Your task to perform on an android device: turn on priority inbox in the gmail app Image 0: 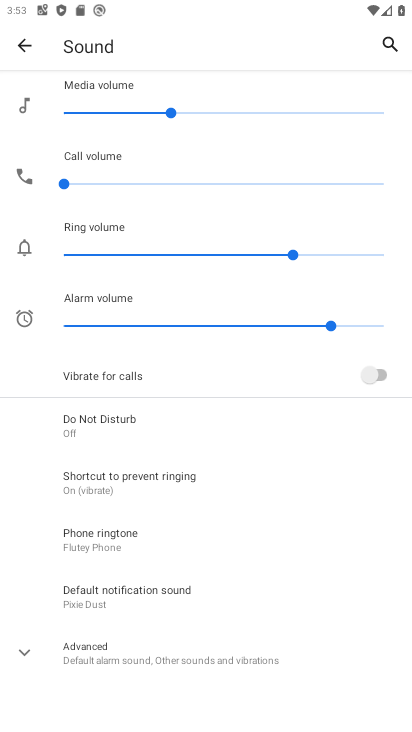
Step 0: press back button
Your task to perform on an android device: turn on priority inbox in the gmail app Image 1: 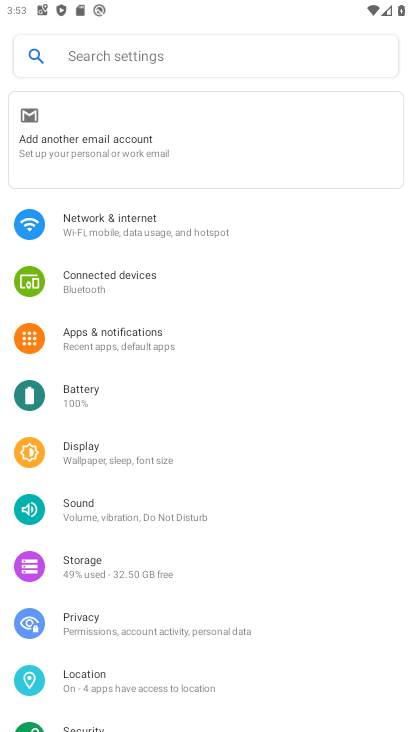
Step 1: press home button
Your task to perform on an android device: turn on priority inbox in the gmail app Image 2: 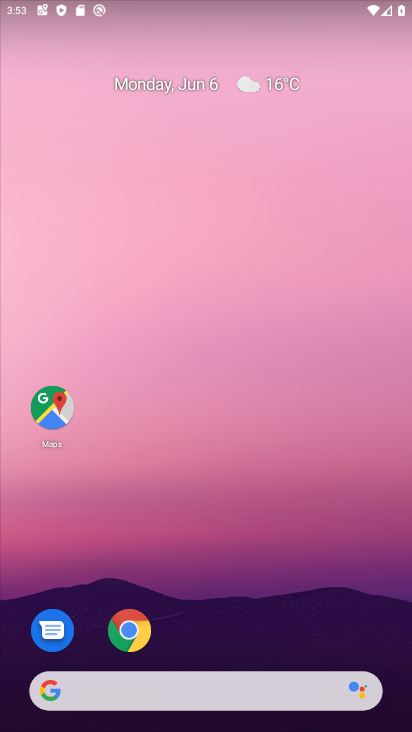
Step 2: drag from (239, 613) to (334, 75)
Your task to perform on an android device: turn on priority inbox in the gmail app Image 3: 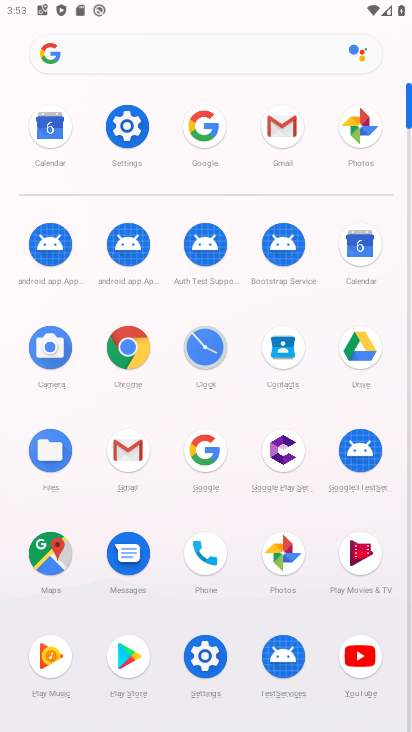
Step 3: click (290, 122)
Your task to perform on an android device: turn on priority inbox in the gmail app Image 4: 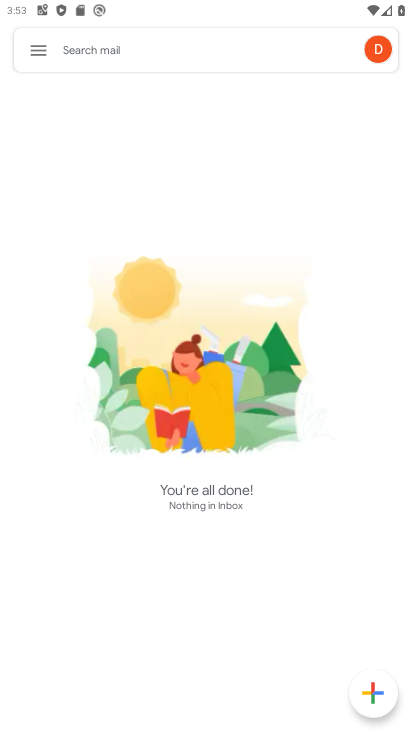
Step 4: click (26, 52)
Your task to perform on an android device: turn on priority inbox in the gmail app Image 5: 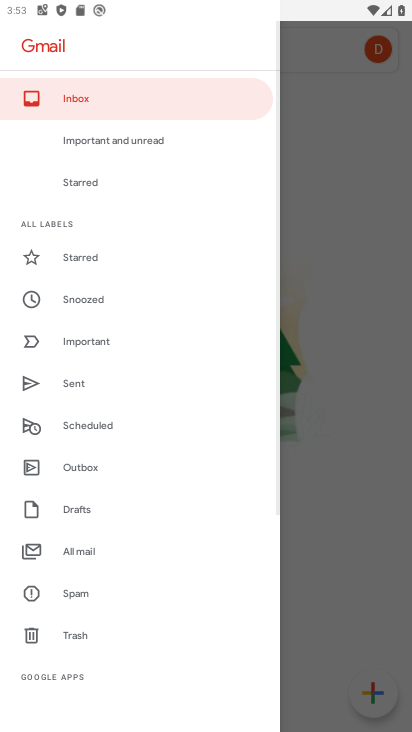
Step 5: drag from (109, 603) to (131, 155)
Your task to perform on an android device: turn on priority inbox in the gmail app Image 6: 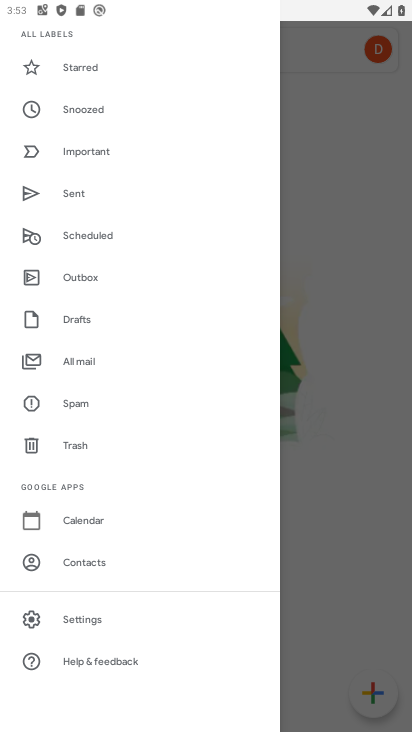
Step 6: click (71, 613)
Your task to perform on an android device: turn on priority inbox in the gmail app Image 7: 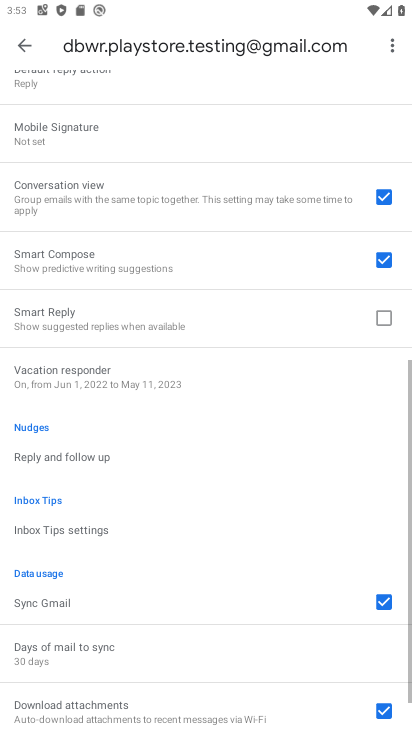
Step 7: drag from (103, 124) to (123, 725)
Your task to perform on an android device: turn on priority inbox in the gmail app Image 8: 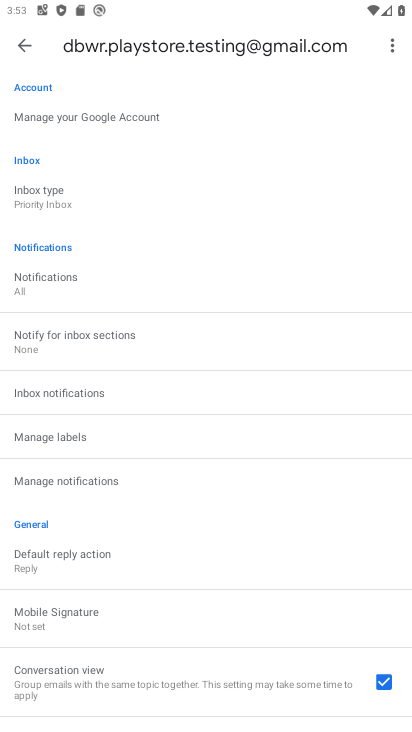
Step 8: click (54, 200)
Your task to perform on an android device: turn on priority inbox in the gmail app Image 9: 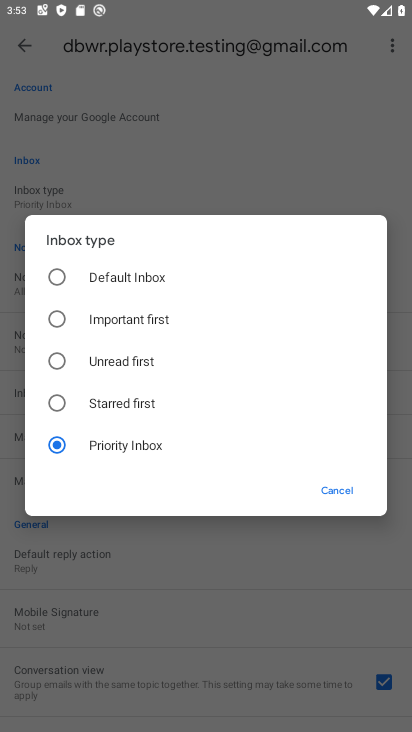
Step 9: task complete